Your task to perform on an android device: Open calendar and show me the second week of next month Image 0: 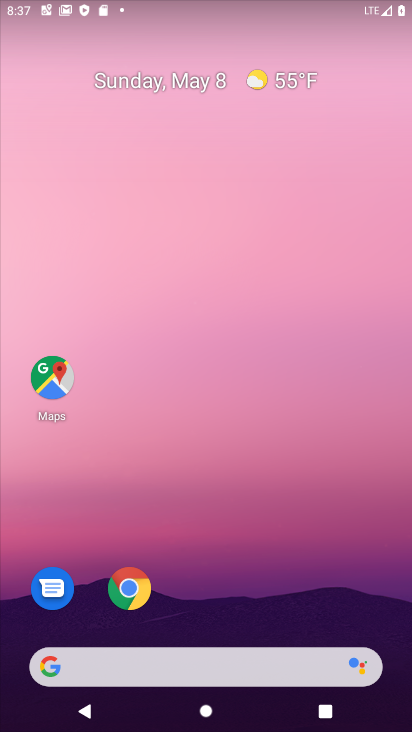
Step 0: drag from (351, 610) to (221, 71)
Your task to perform on an android device: Open calendar and show me the second week of next month Image 1: 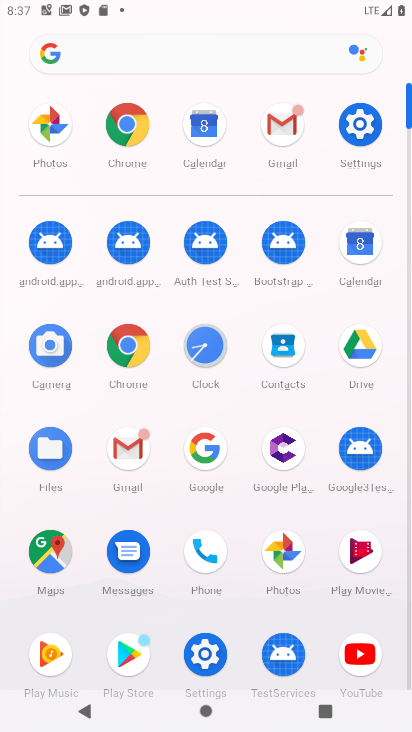
Step 1: click (339, 254)
Your task to perform on an android device: Open calendar and show me the second week of next month Image 2: 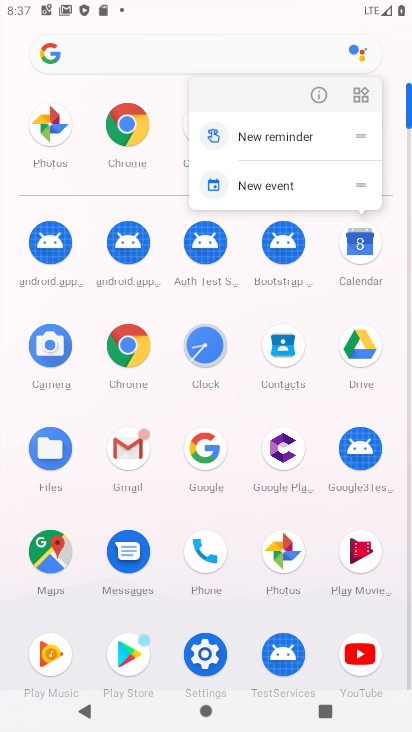
Step 2: click (367, 254)
Your task to perform on an android device: Open calendar and show me the second week of next month Image 3: 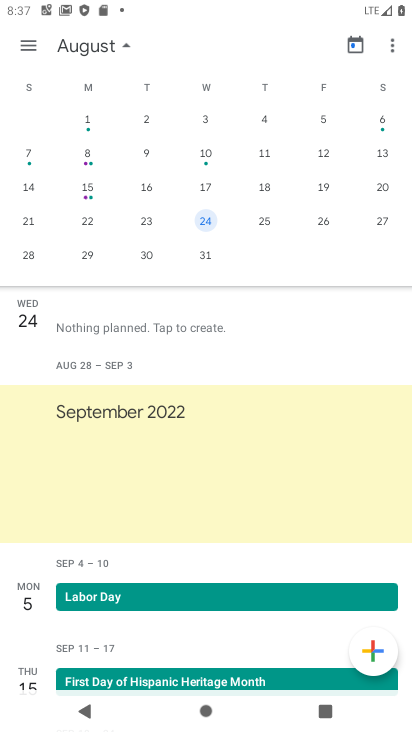
Step 3: drag from (303, 141) to (0, 144)
Your task to perform on an android device: Open calendar and show me the second week of next month Image 4: 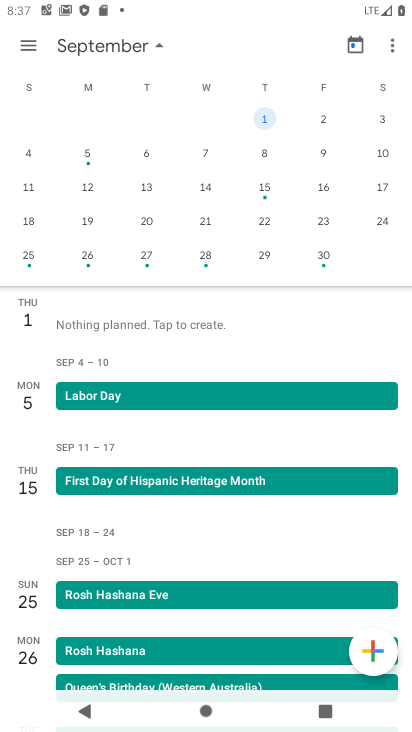
Step 4: click (267, 184)
Your task to perform on an android device: Open calendar and show me the second week of next month Image 5: 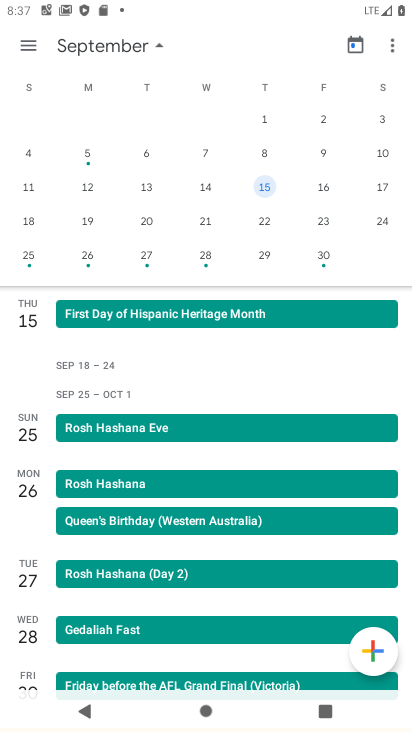
Step 5: task complete